Your task to perform on an android device: Go to notification settings Image 0: 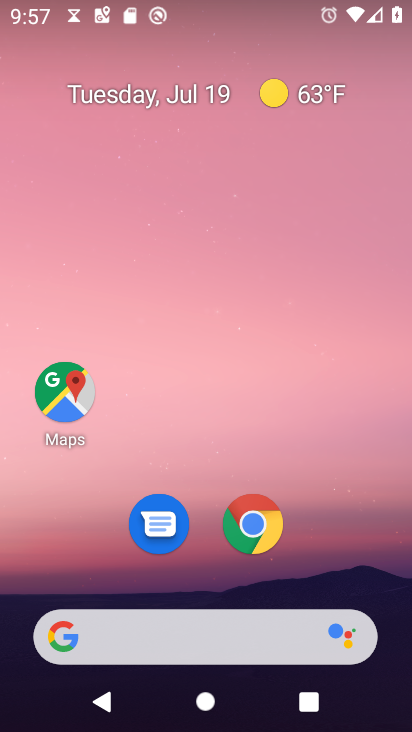
Step 0: press home button
Your task to perform on an android device: Go to notification settings Image 1: 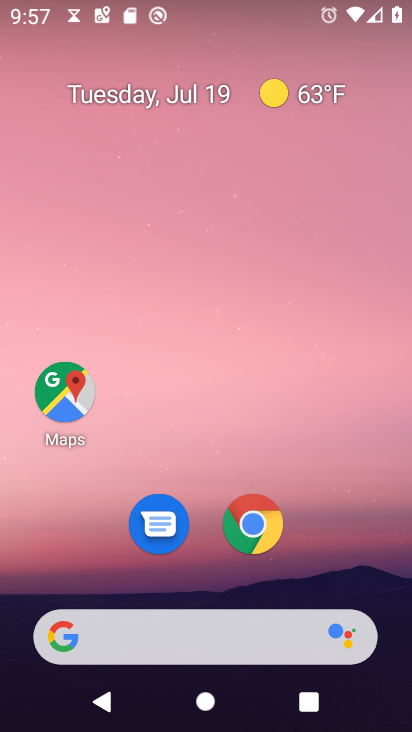
Step 1: drag from (134, 640) to (308, 55)
Your task to perform on an android device: Go to notification settings Image 2: 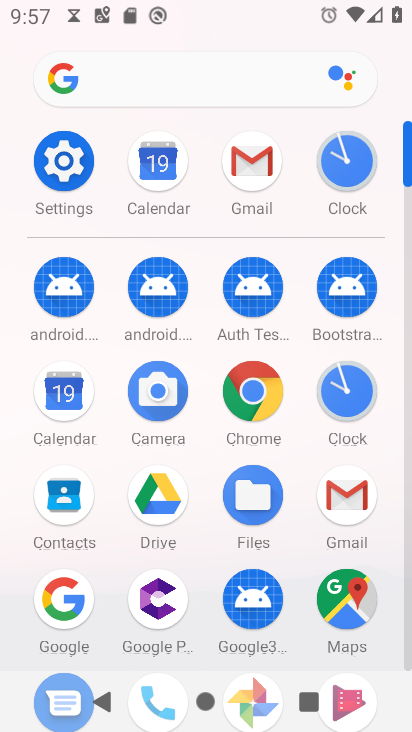
Step 2: click (72, 167)
Your task to perform on an android device: Go to notification settings Image 3: 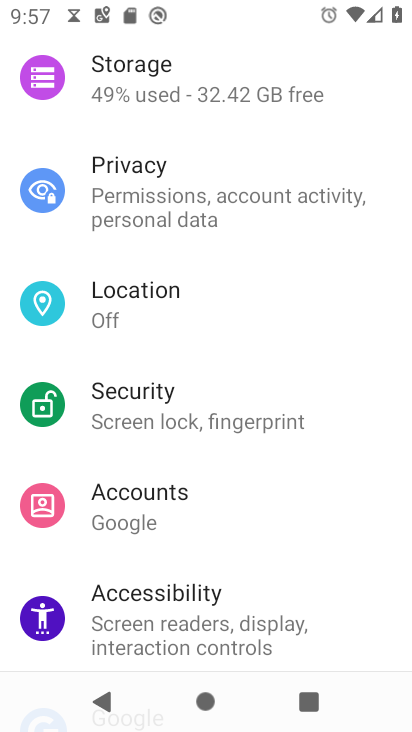
Step 3: drag from (331, 139) to (238, 663)
Your task to perform on an android device: Go to notification settings Image 4: 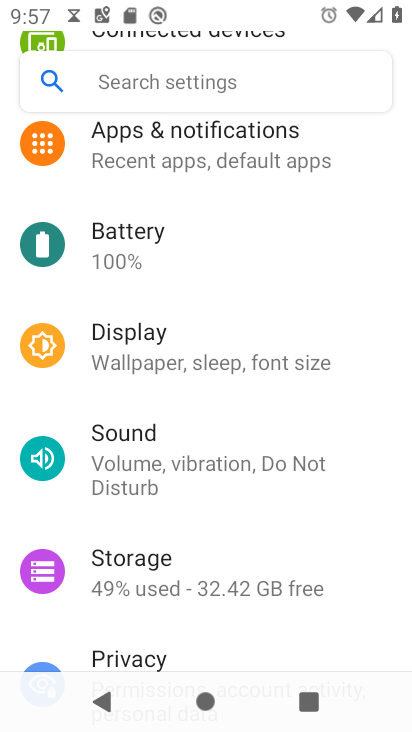
Step 4: click (221, 139)
Your task to perform on an android device: Go to notification settings Image 5: 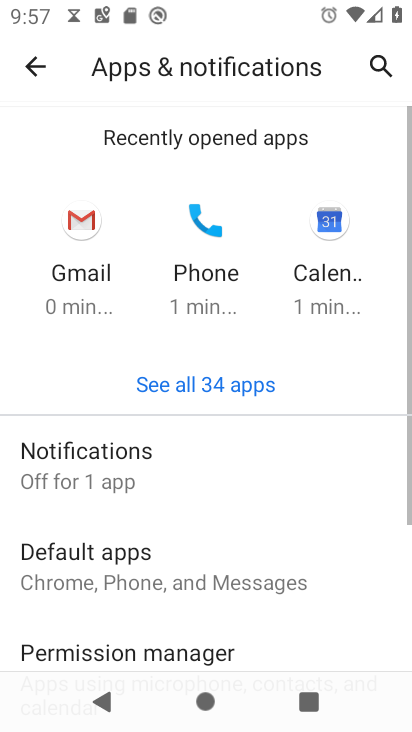
Step 5: click (118, 449)
Your task to perform on an android device: Go to notification settings Image 6: 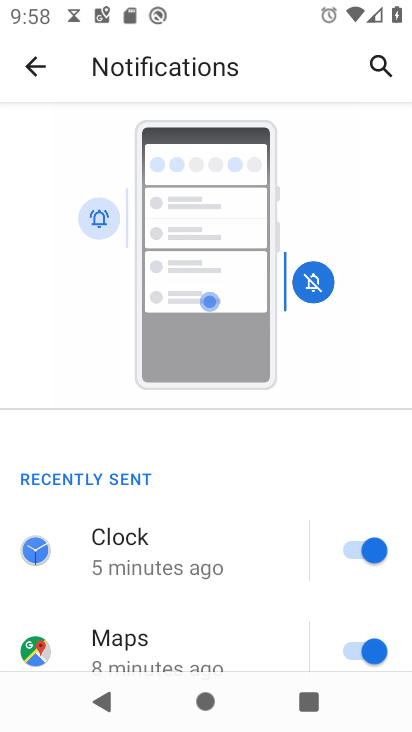
Step 6: task complete